Your task to perform on an android device: turn on showing notifications on the lock screen Image 0: 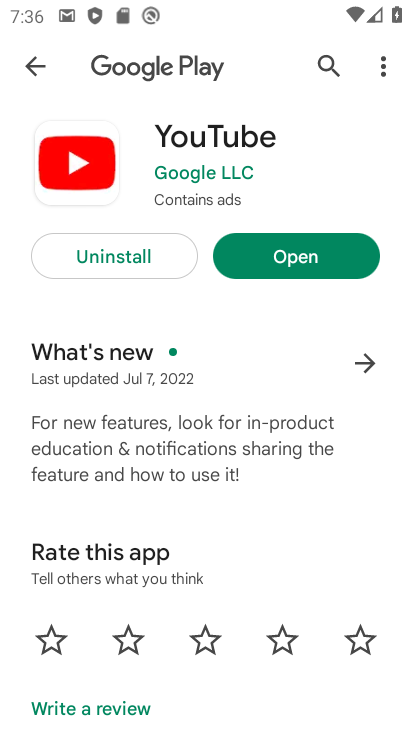
Step 0: press home button
Your task to perform on an android device: turn on showing notifications on the lock screen Image 1: 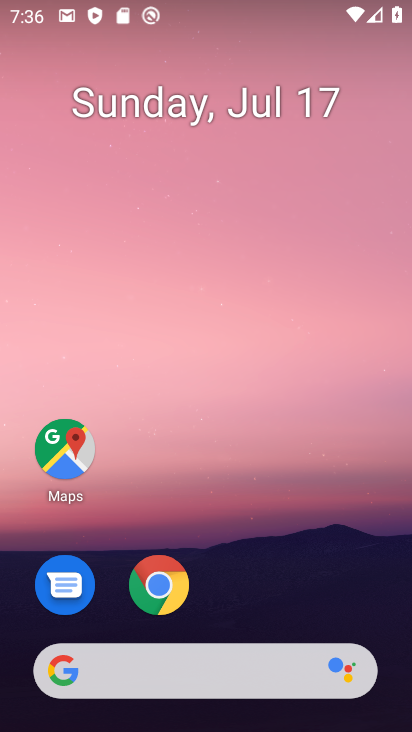
Step 1: drag from (204, 673) to (328, 214)
Your task to perform on an android device: turn on showing notifications on the lock screen Image 2: 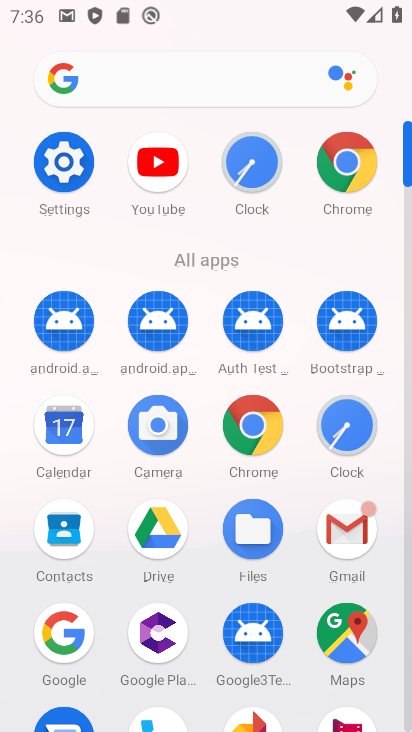
Step 2: click (58, 157)
Your task to perform on an android device: turn on showing notifications on the lock screen Image 3: 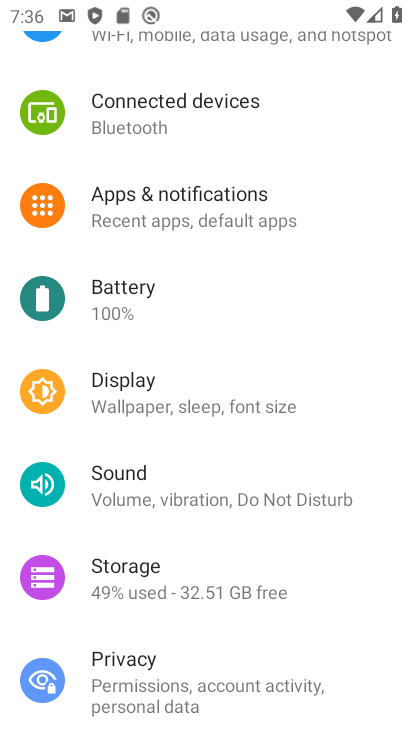
Step 3: drag from (271, 108) to (272, 463)
Your task to perform on an android device: turn on showing notifications on the lock screen Image 4: 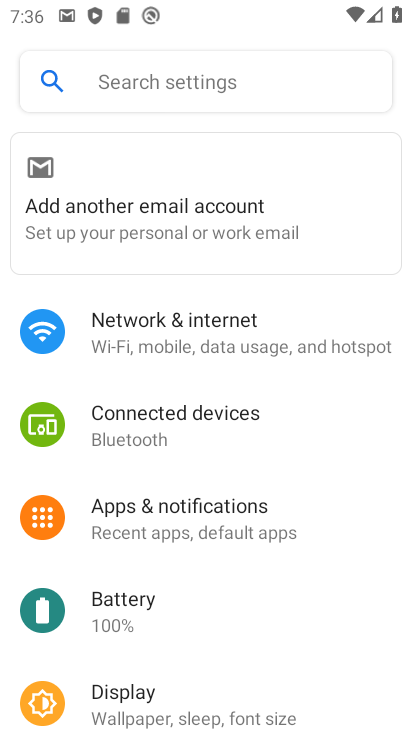
Step 4: click (224, 504)
Your task to perform on an android device: turn on showing notifications on the lock screen Image 5: 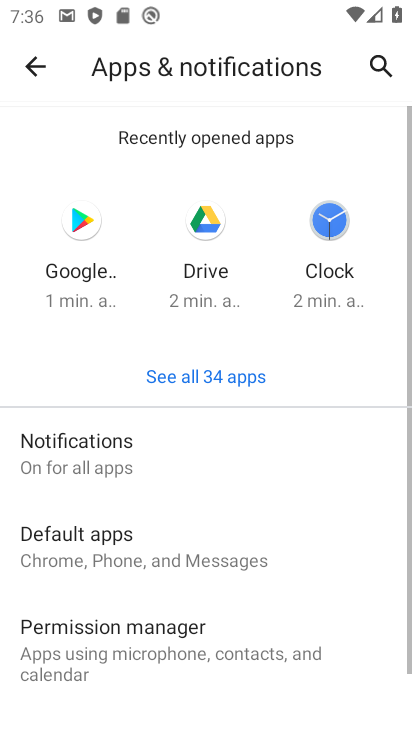
Step 5: click (88, 460)
Your task to perform on an android device: turn on showing notifications on the lock screen Image 6: 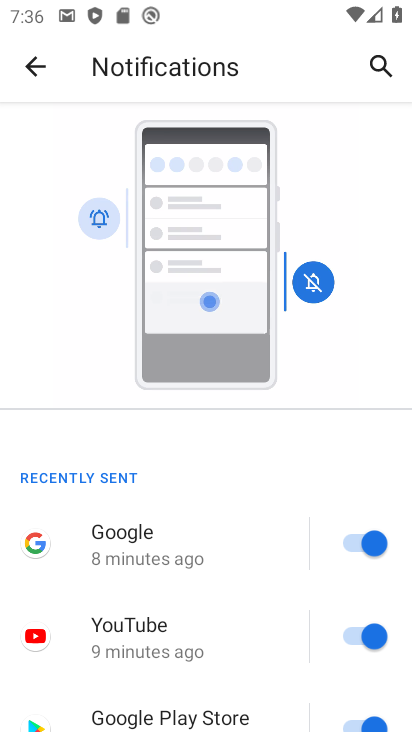
Step 6: drag from (319, 448) to (326, 32)
Your task to perform on an android device: turn on showing notifications on the lock screen Image 7: 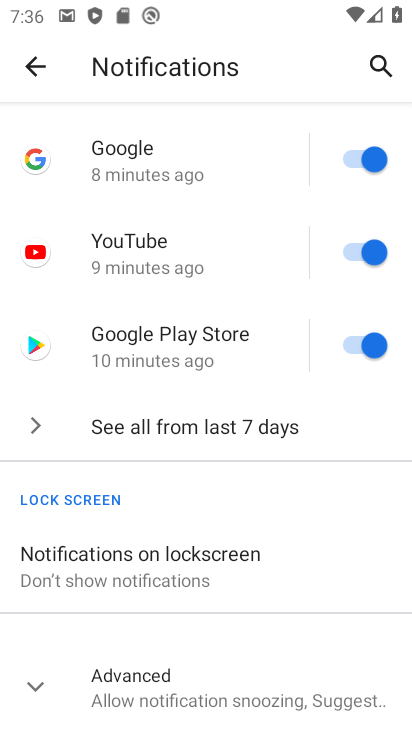
Step 7: click (126, 560)
Your task to perform on an android device: turn on showing notifications on the lock screen Image 8: 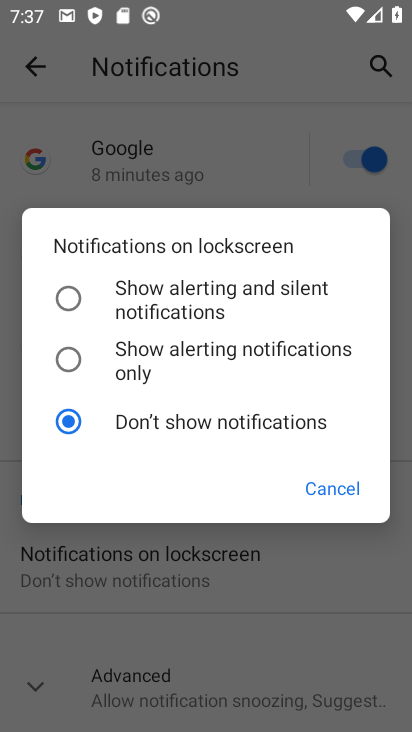
Step 8: click (67, 295)
Your task to perform on an android device: turn on showing notifications on the lock screen Image 9: 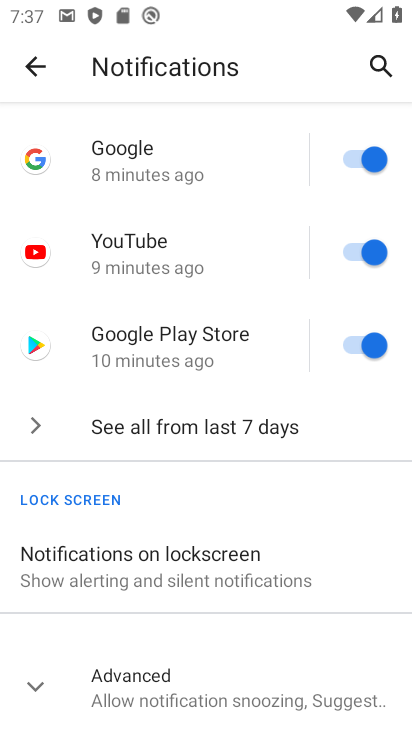
Step 9: task complete